Your task to perform on an android device: turn off notifications settings in the gmail app Image 0: 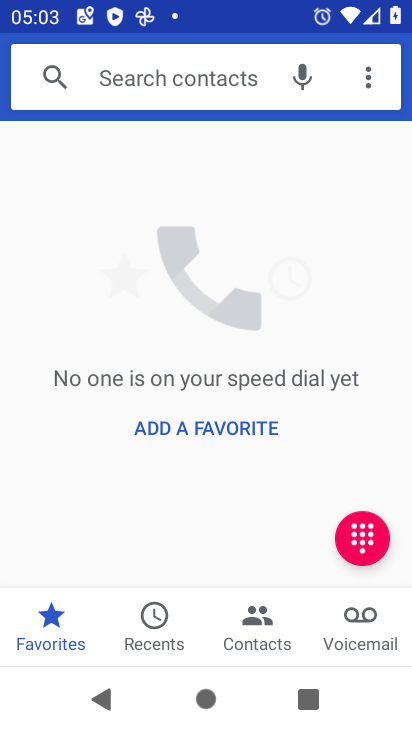
Step 0: press home button
Your task to perform on an android device: turn off notifications settings in the gmail app Image 1: 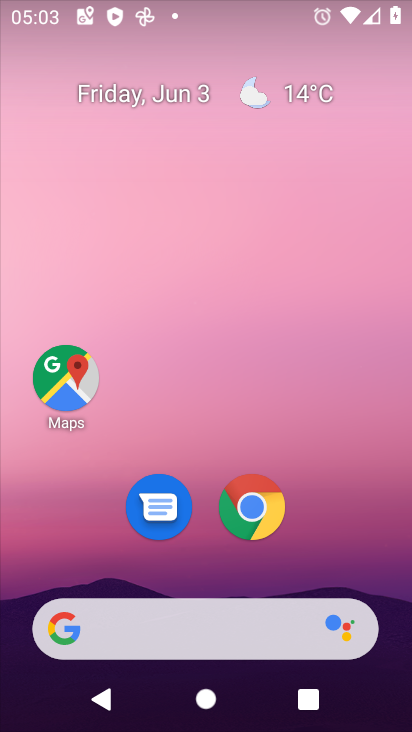
Step 1: drag from (310, 549) to (293, 116)
Your task to perform on an android device: turn off notifications settings in the gmail app Image 2: 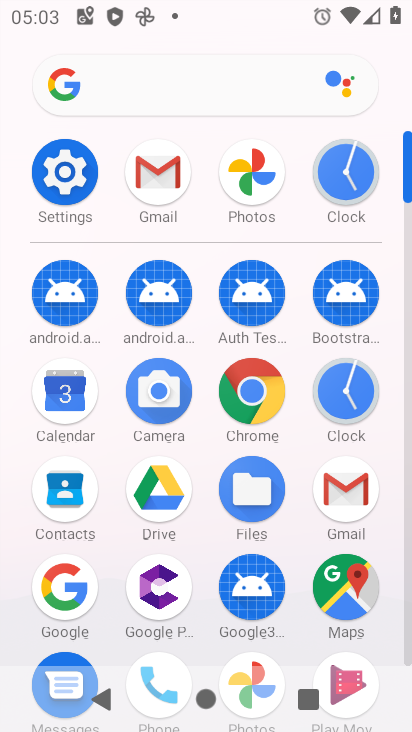
Step 2: click (175, 172)
Your task to perform on an android device: turn off notifications settings in the gmail app Image 3: 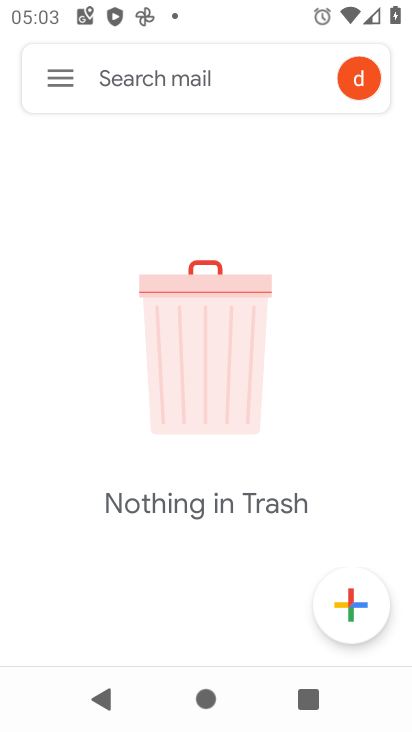
Step 3: click (65, 81)
Your task to perform on an android device: turn off notifications settings in the gmail app Image 4: 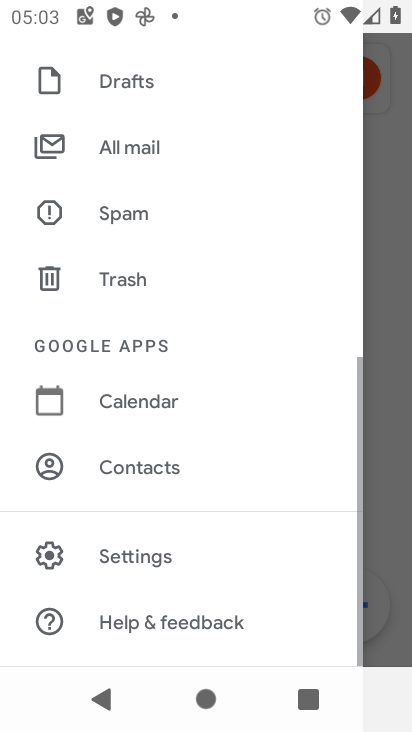
Step 4: click (165, 553)
Your task to perform on an android device: turn off notifications settings in the gmail app Image 5: 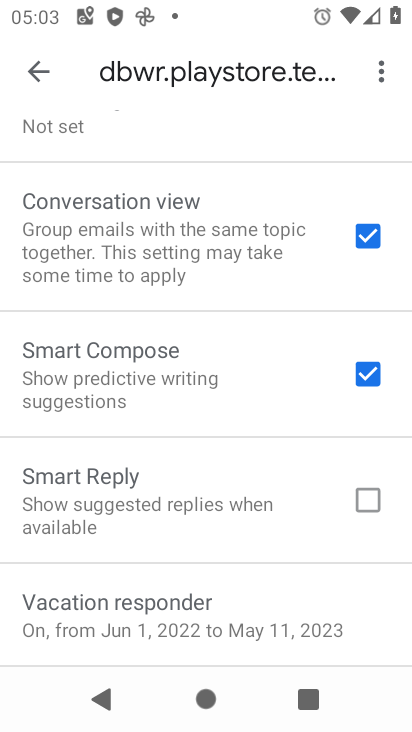
Step 5: drag from (231, 147) to (199, 730)
Your task to perform on an android device: turn off notifications settings in the gmail app Image 6: 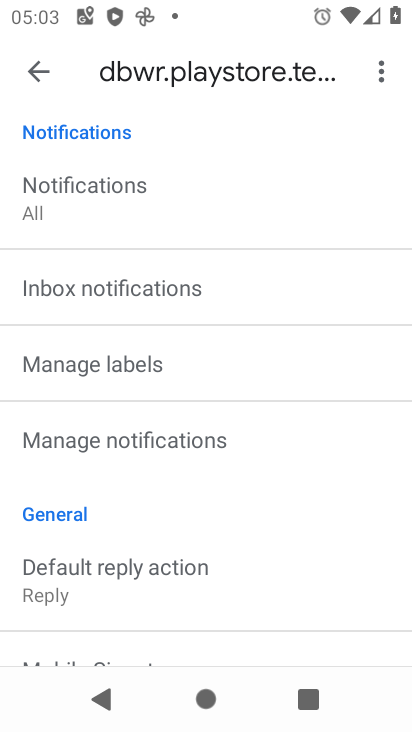
Step 6: click (126, 440)
Your task to perform on an android device: turn off notifications settings in the gmail app Image 7: 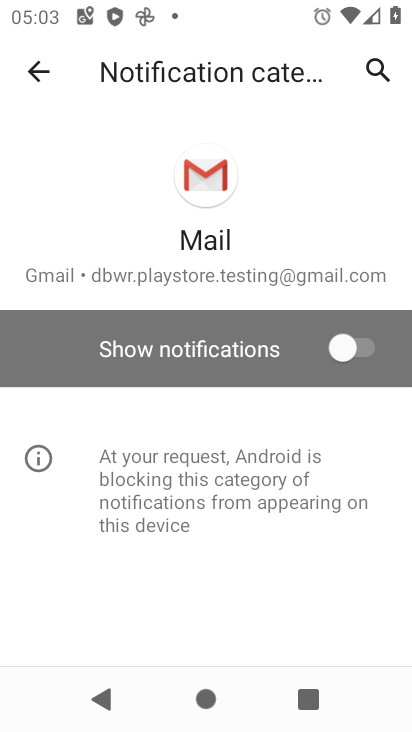
Step 7: task complete